Your task to perform on an android device: Go to notification settings Image 0: 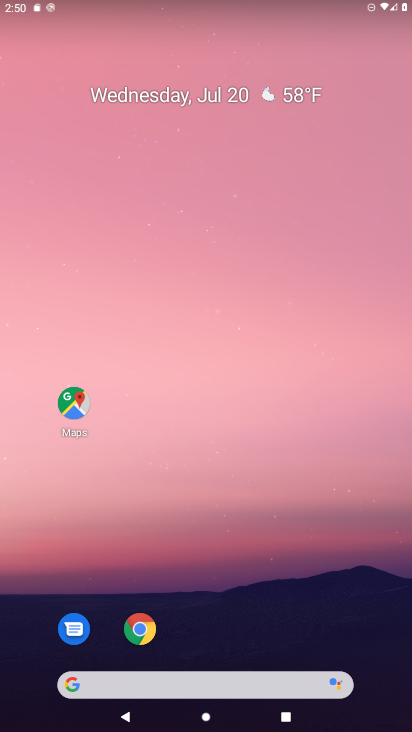
Step 0: press home button
Your task to perform on an android device: Go to notification settings Image 1: 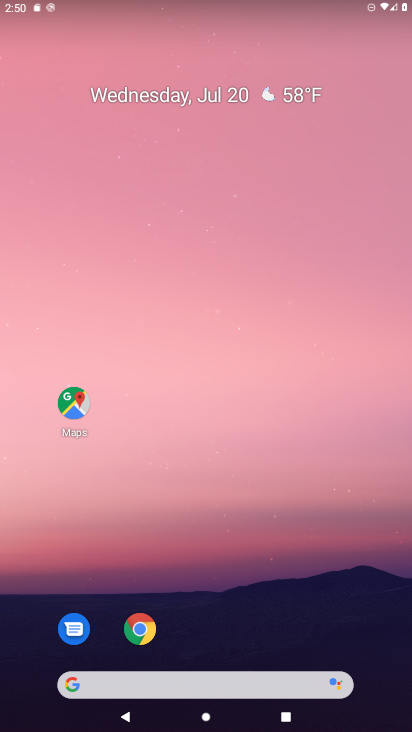
Step 1: drag from (246, 600) to (246, 137)
Your task to perform on an android device: Go to notification settings Image 2: 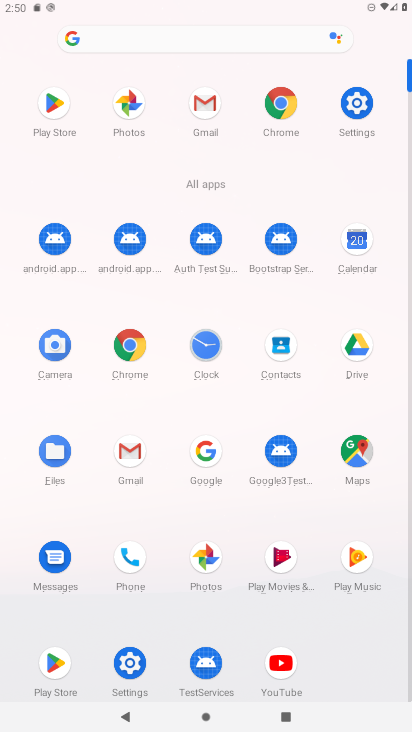
Step 2: click (347, 106)
Your task to perform on an android device: Go to notification settings Image 3: 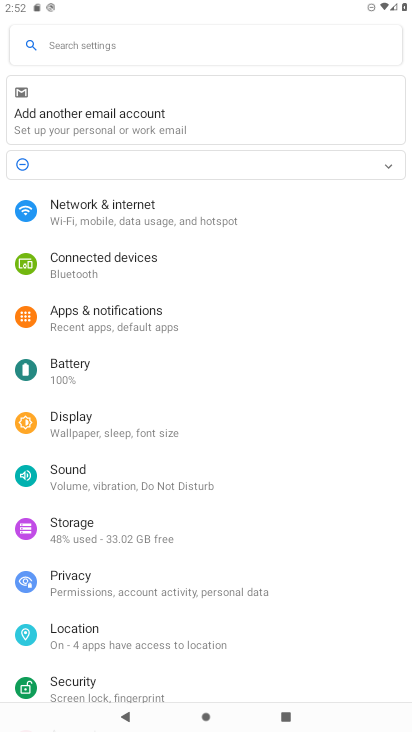
Step 3: click (152, 329)
Your task to perform on an android device: Go to notification settings Image 4: 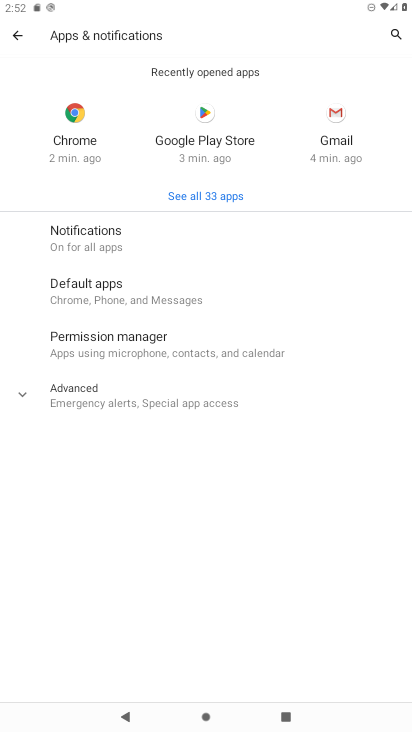
Step 4: click (69, 223)
Your task to perform on an android device: Go to notification settings Image 5: 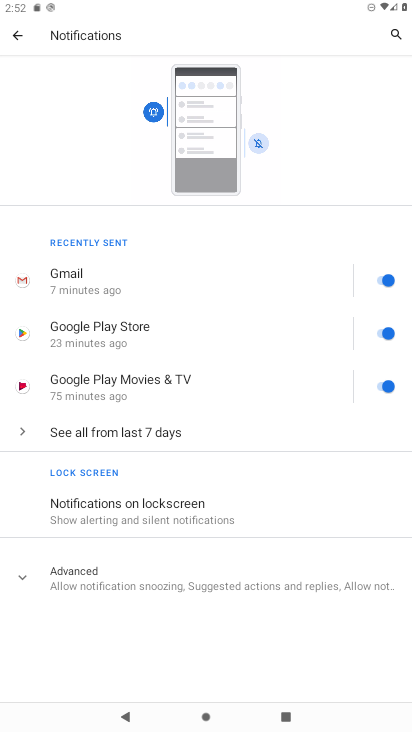
Step 5: task complete